Your task to perform on an android device: turn notification dots off Image 0: 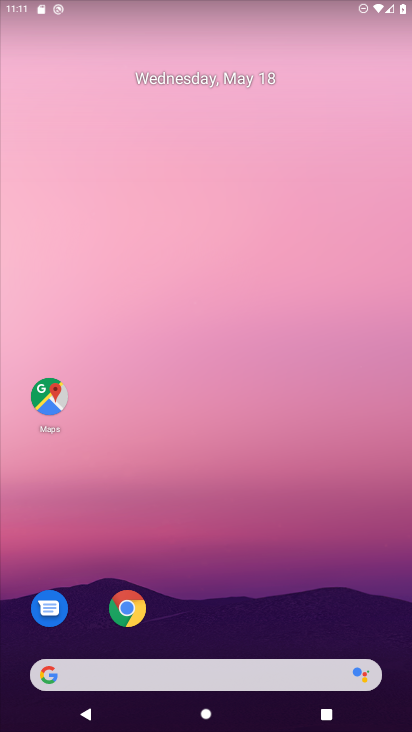
Step 0: drag from (255, 622) to (164, 101)
Your task to perform on an android device: turn notification dots off Image 1: 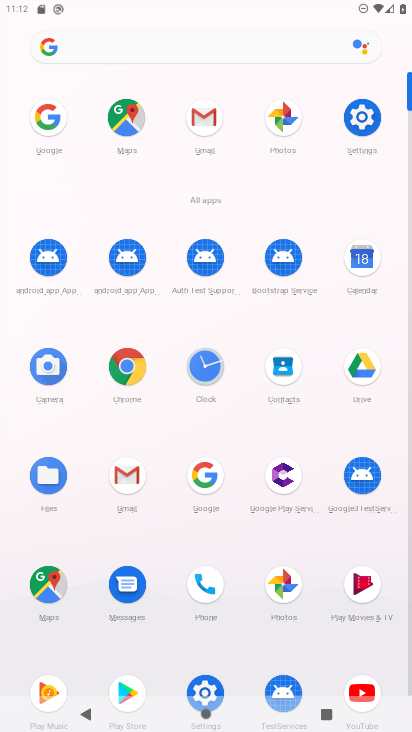
Step 1: click (361, 116)
Your task to perform on an android device: turn notification dots off Image 2: 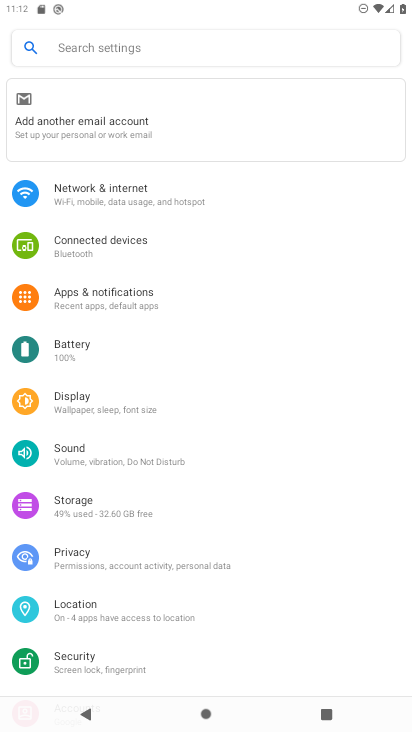
Step 2: click (97, 297)
Your task to perform on an android device: turn notification dots off Image 3: 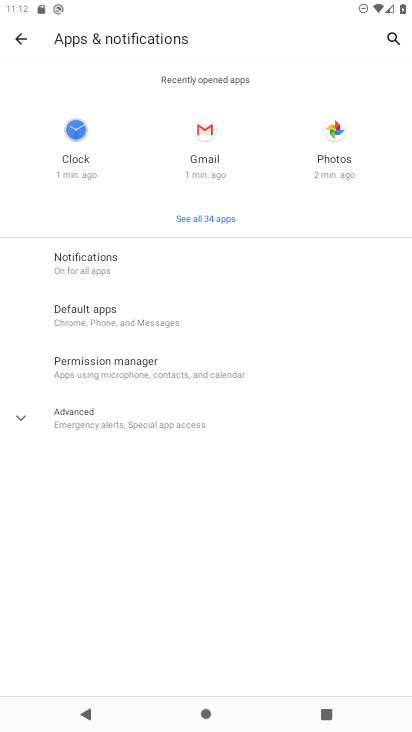
Step 3: click (101, 264)
Your task to perform on an android device: turn notification dots off Image 4: 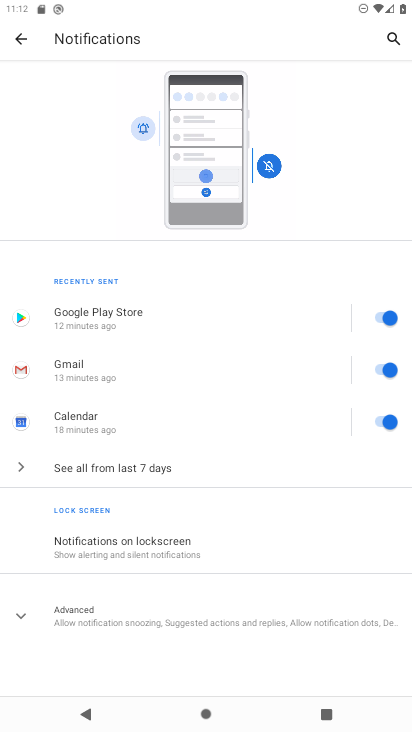
Step 4: drag from (114, 513) to (116, 428)
Your task to perform on an android device: turn notification dots off Image 5: 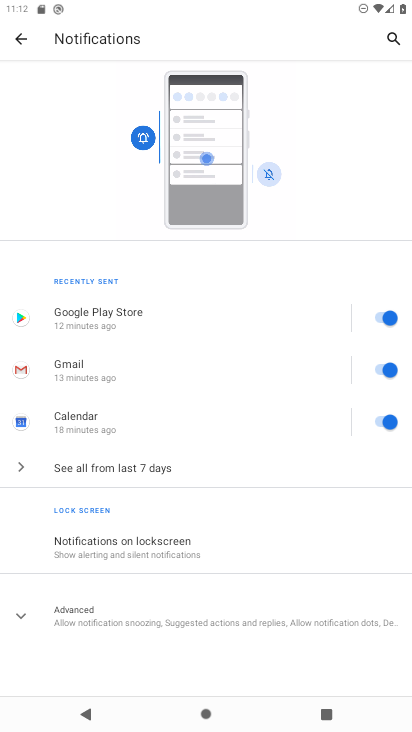
Step 5: click (141, 621)
Your task to perform on an android device: turn notification dots off Image 6: 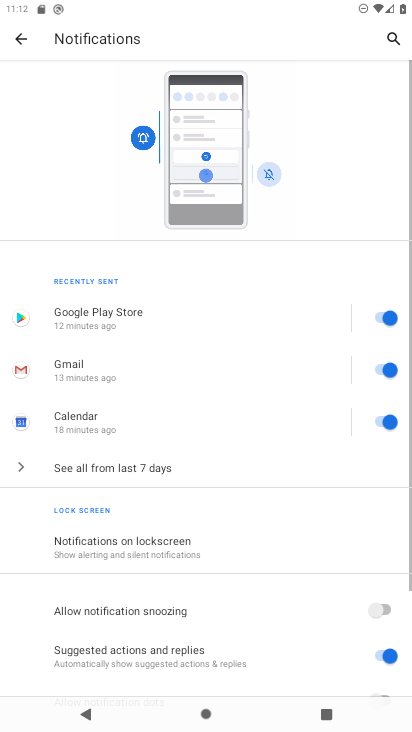
Step 6: task complete